Your task to perform on an android device: Open sound settings Image 0: 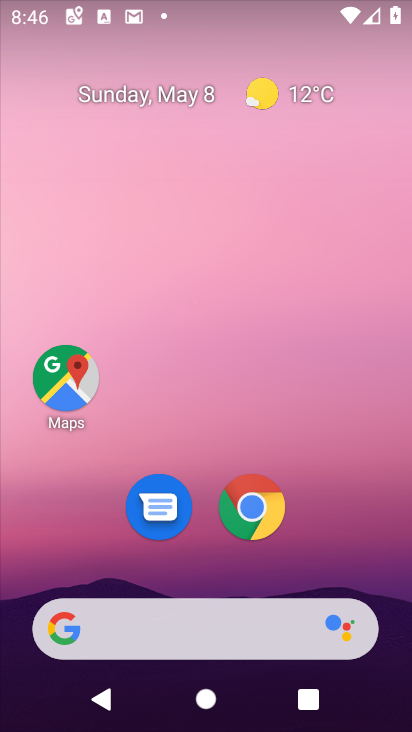
Step 0: drag from (271, 557) to (259, 0)
Your task to perform on an android device: Open sound settings Image 1: 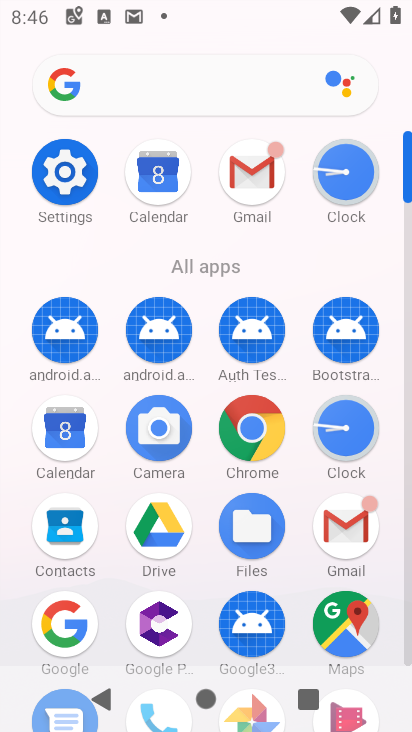
Step 1: click (59, 174)
Your task to perform on an android device: Open sound settings Image 2: 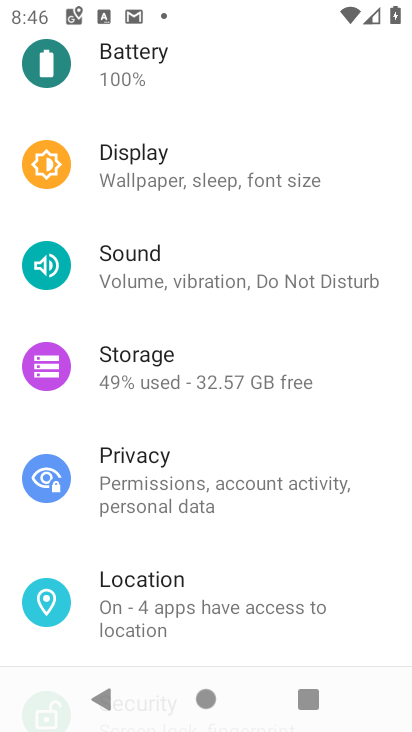
Step 2: click (241, 272)
Your task to perform on an android device: Open sound settings Image 3: 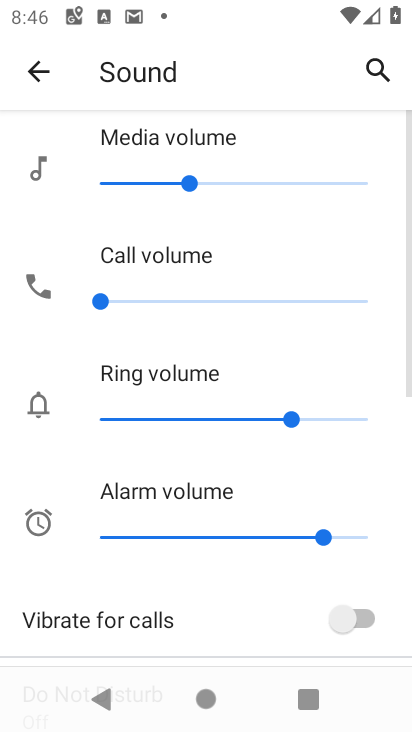
Step 3: task complete